Your task to perform on an android device: Open Reddit.com Image 0: 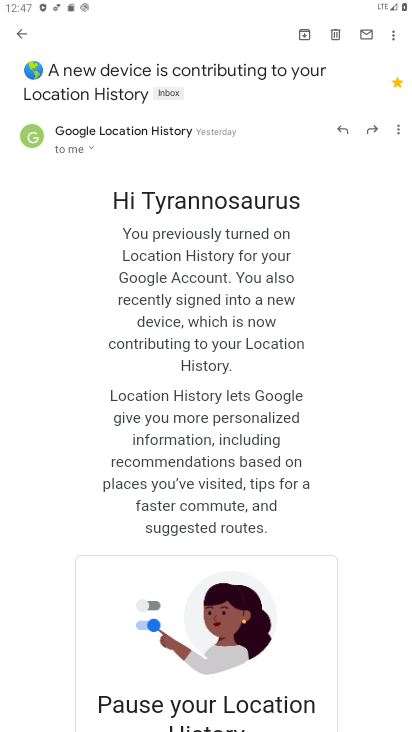
Step 0: press home button
Your task to perform on an android device: Open Reddit.com Image 1: 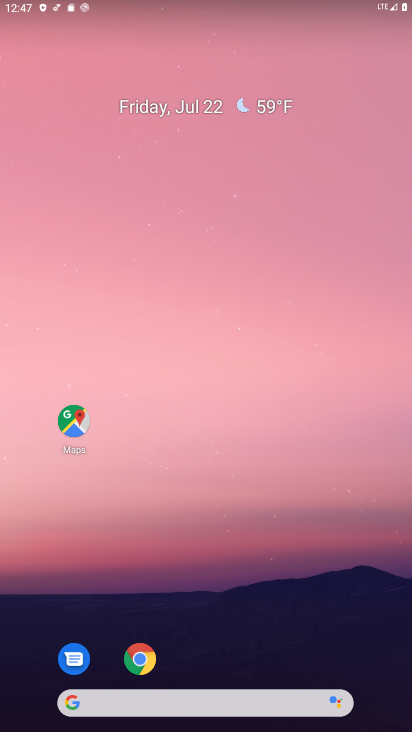
Step 1: click (148, 654)
Your task to perform on an android device: Open Reddit.com Image 2: 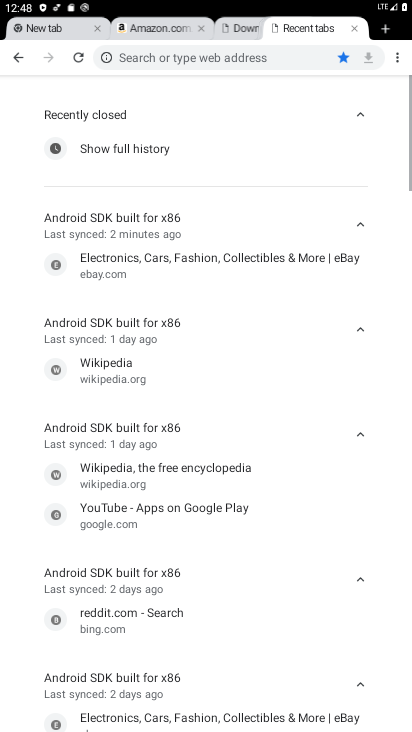
Step 2: click (380, 23)
Your task to perform on an android device: Open Reddit.com Image 3: 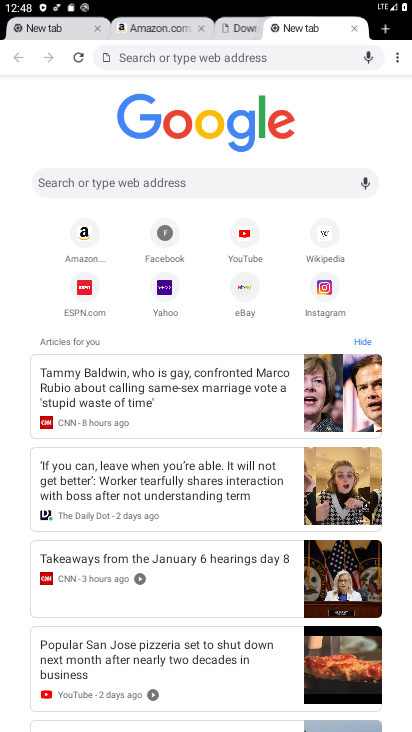
Step 3: click (163, 184)
Your task to perform on an android device: Open Reddit.com Image 4: 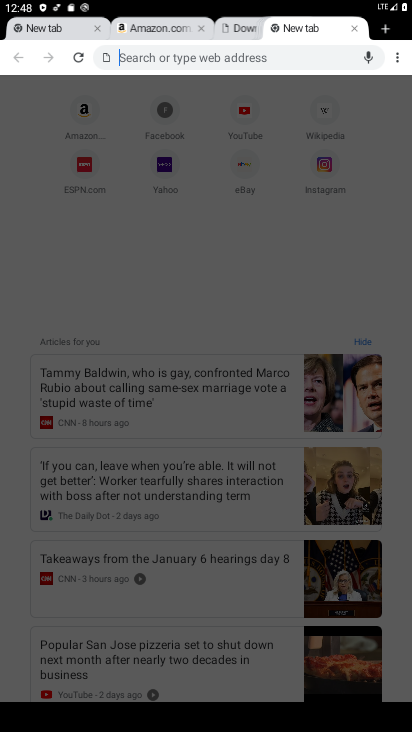
Step 4: type "Reddit.com"
Your task to perform on an android device: Open Reddit.com Image 5: 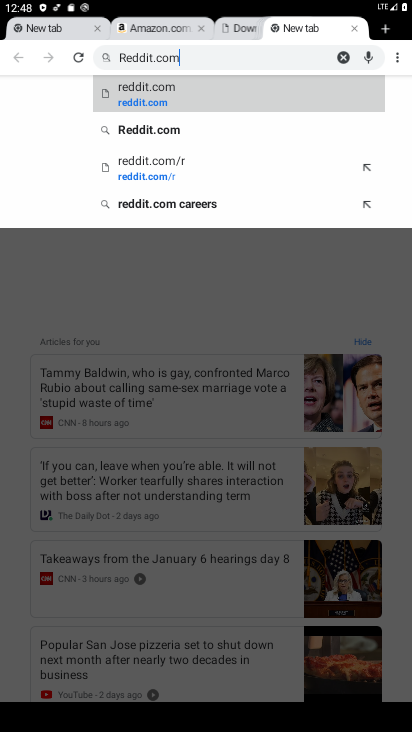
Step 5: type ""
Your task to perform on an android device: Open Reddit.com Image 6: 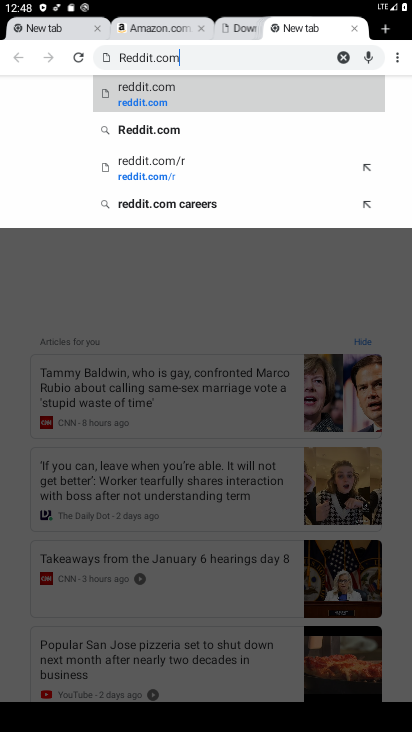
Step 6: click (152, 87)
Your task to perform on an android device: Open Reddit.com Image 7: 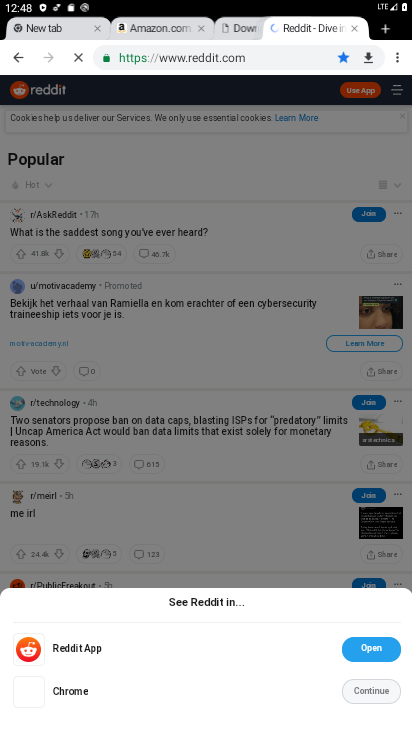
Step 7: task complete